Your task to perform on an android device: turn pop-ups on in chrome Image 0: 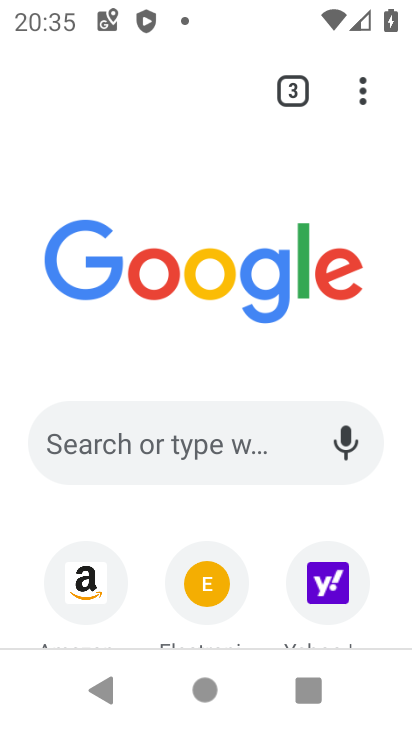
Step 0: press home button
Your task to perform on an android device: turn pop-ups on in chrome Image 1: 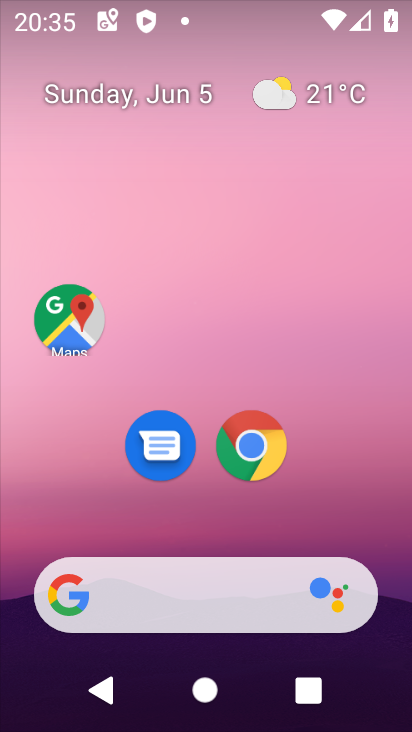
Step 1: click (276, 441)
Your task to perform on an android device: turn pop-ups on in chrome Image 2: 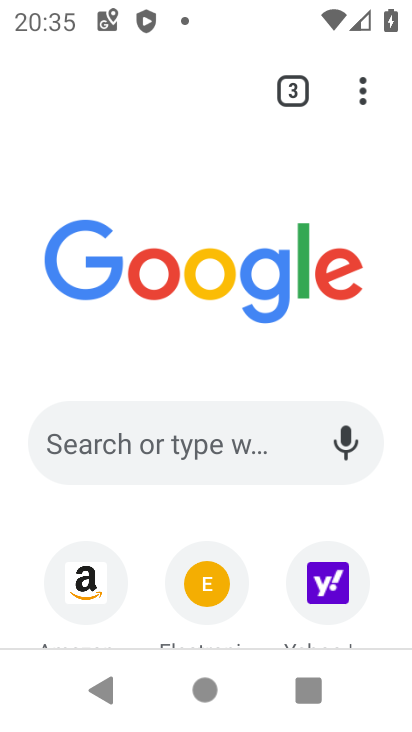
Step 2: drag from (360, 88) to (280, 493)
Your task to perform on an android device: turn pop-ups on in chrome Image 3: 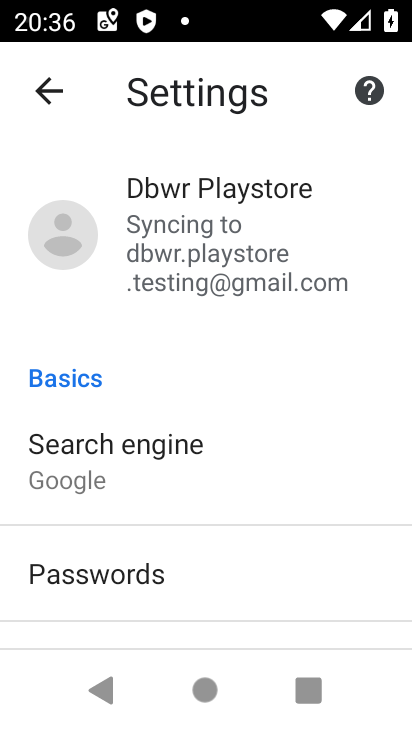
Step 3: drag from (346, 483) to (331, 108)
Your task to perform on an android device: turn pop-ups on in chrome Image 4: 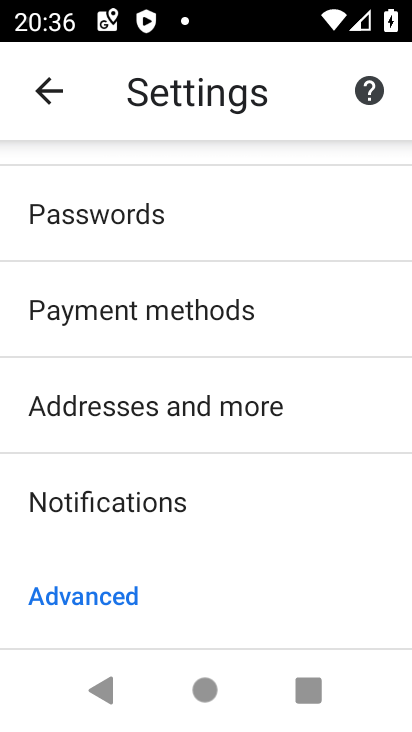
Step 4: drag from (217, 604) to (250, 353)
Your task to perform on an android device: turn pop-ups on in chrome Image 5: 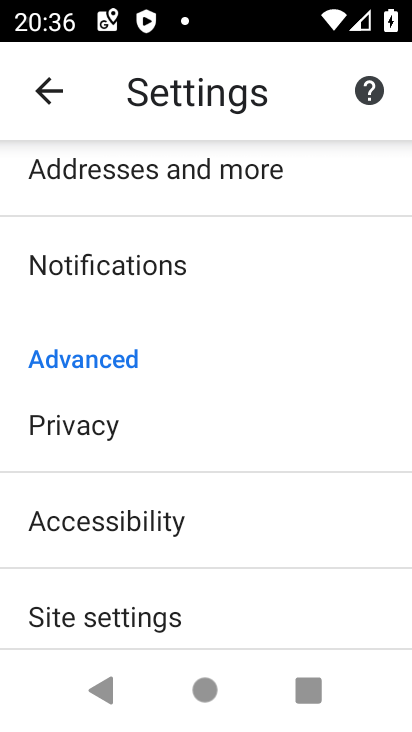
Step 5: click (173, 608)
Your task to perform on an android device: turn pop-ups on in chrome Image 6: 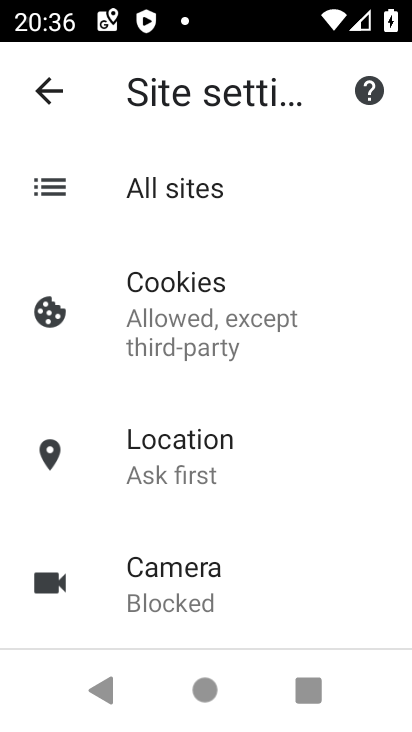
Step 6: drag from (301, 594) to (266, 142)
Your task to perform on an android device: turn pop-ups on in chrome Image 7: 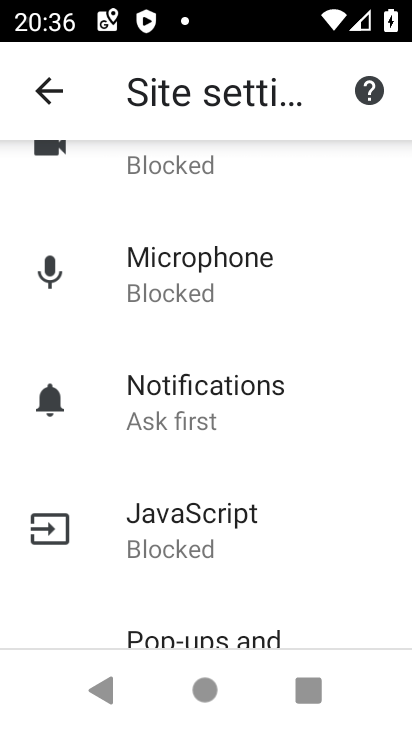
Step 7: click (278, 630)
Your task to perform on an android device: turn pop-ups on in chrome Image 8: 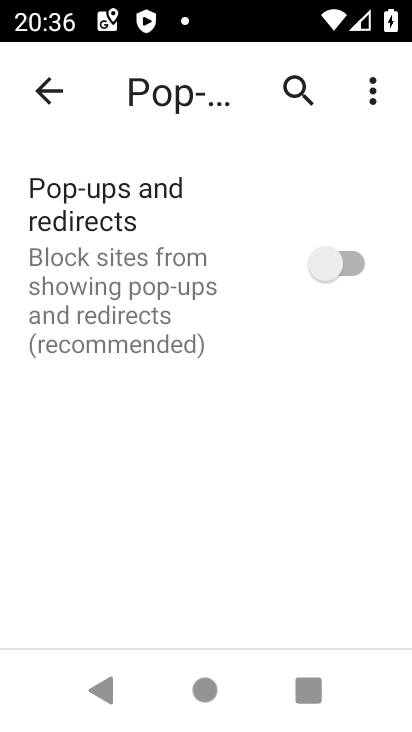
Step 8: click (361, 263)
Your task to perform on an android device: turn pop-ups on in chrome Image 9: 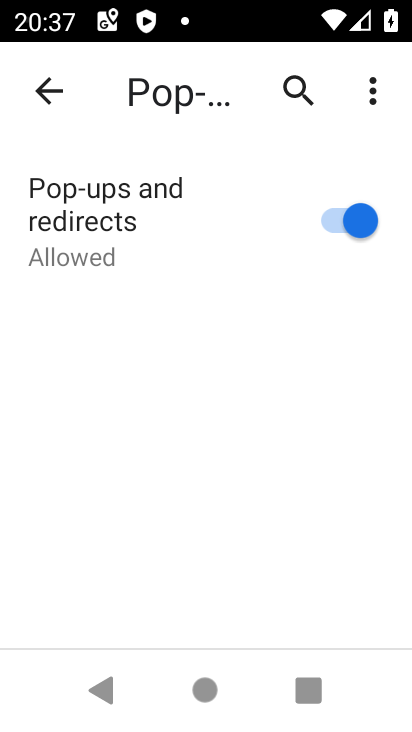
Step 9: task complete